Your task to perform on an android device: check data usage Image 0: 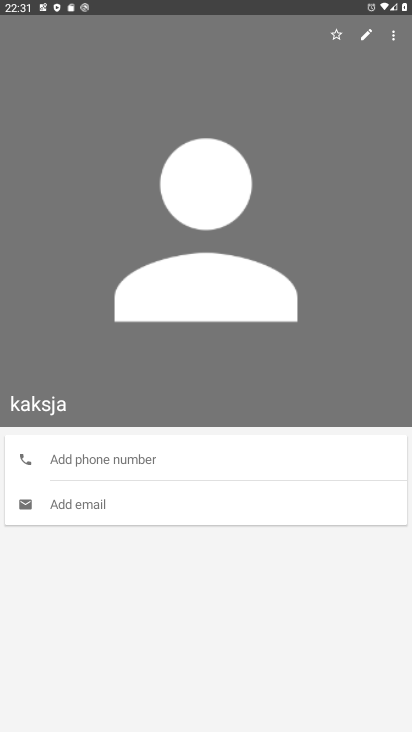
Step 0: press home button
Your task to perform on an android device: check data usage Image 1: 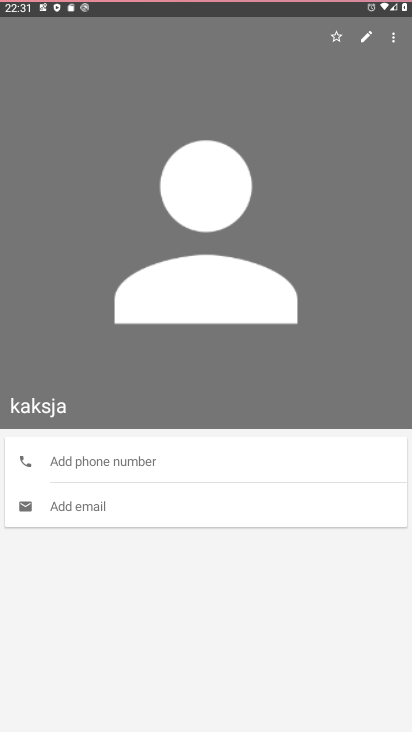
Step 1: drag from (257, 483) to (376, 56)
Your task to perform on an android device: check data usage Image 2: 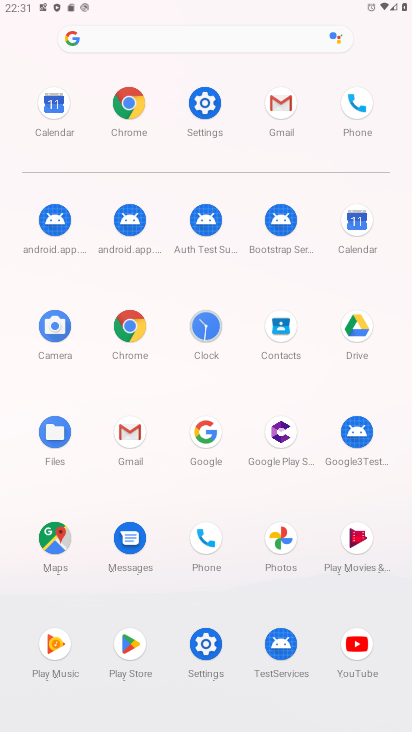
Step 2: click (195, 106)
Your task to perform on an android device: check data usage Image 3: 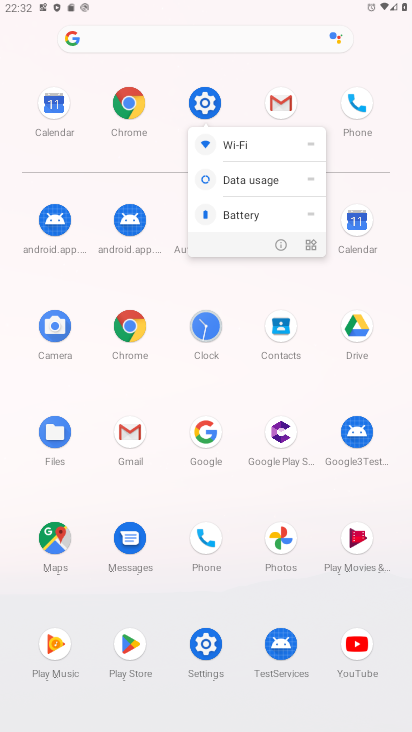
Step 3: click (276, 249)
Your task to perform on an android device: check data usage Image 4: 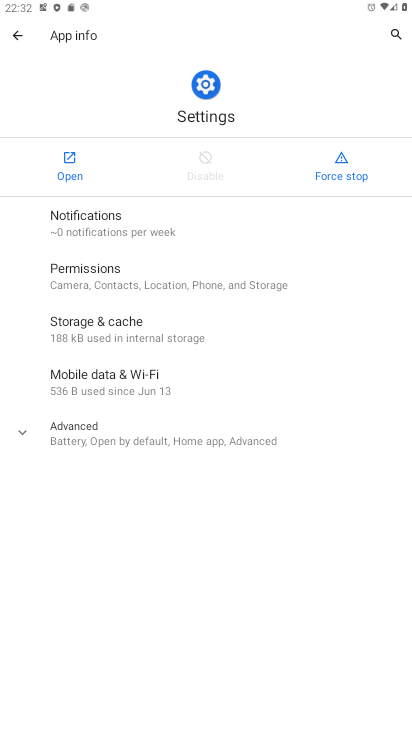
Step 4: click (69, 161)
Your task to perform on an android device: check data usage Image 5: 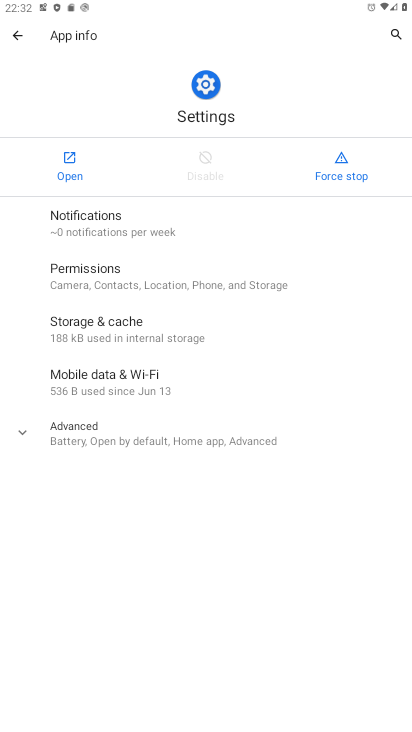
Step 5: click (69, 161)
Your task to perform on an android device: check data usage Image 6: 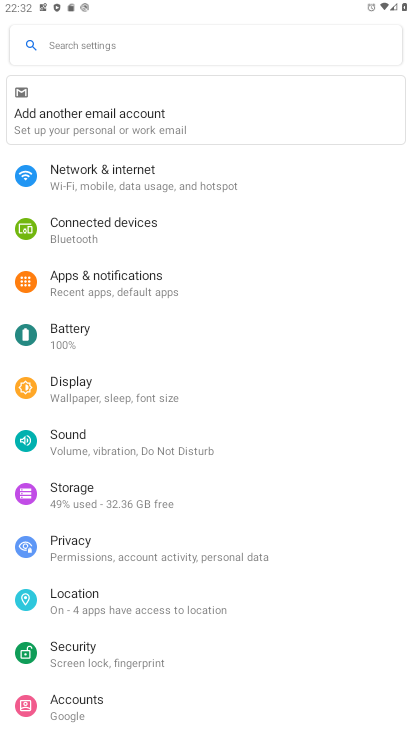
Step 6: click (128, 173)
Your task to perform on an android device: check data usage Image 7: 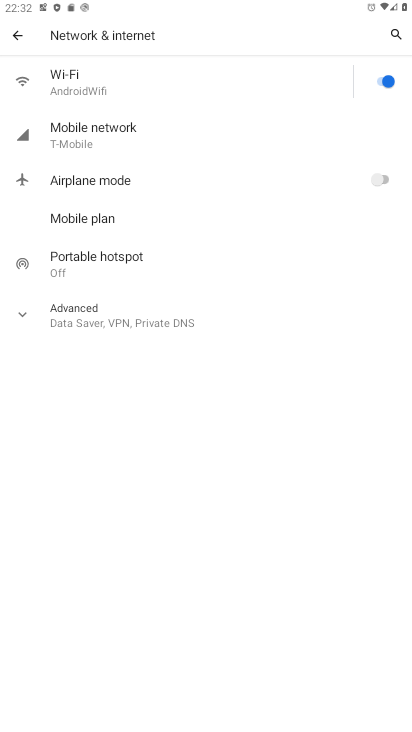
Step 7: click (95, 123)
Your task to perform on an android device: check data usage Image 8: 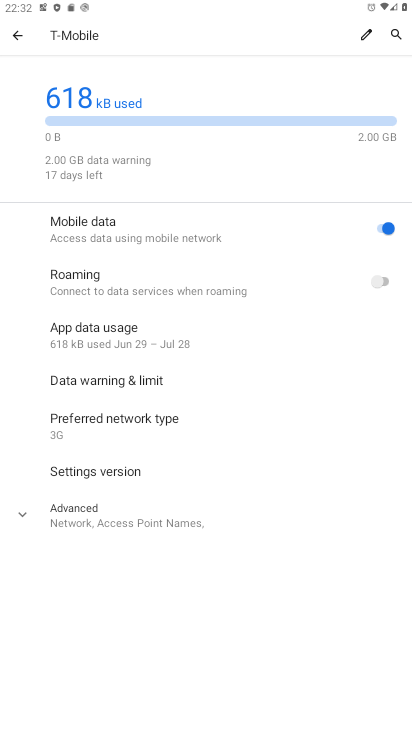
Step 8: task complete